Your task to perform on an android device: change alarm snooze length Image 0: 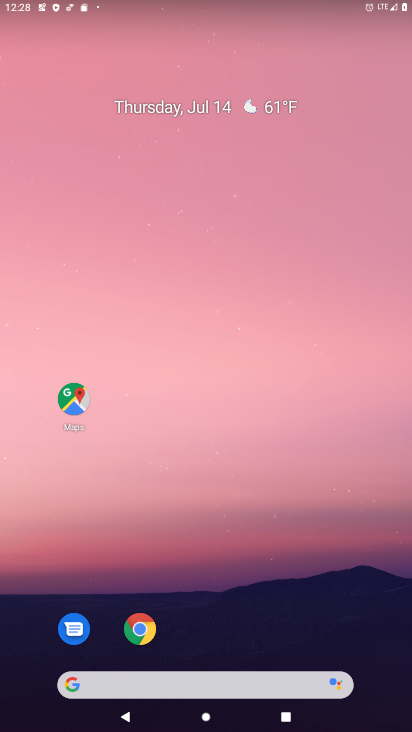
Step 0: drag from (275, 553) to (194, 162)
Your task to perform on an android device: change alarm snooze length Image 1: 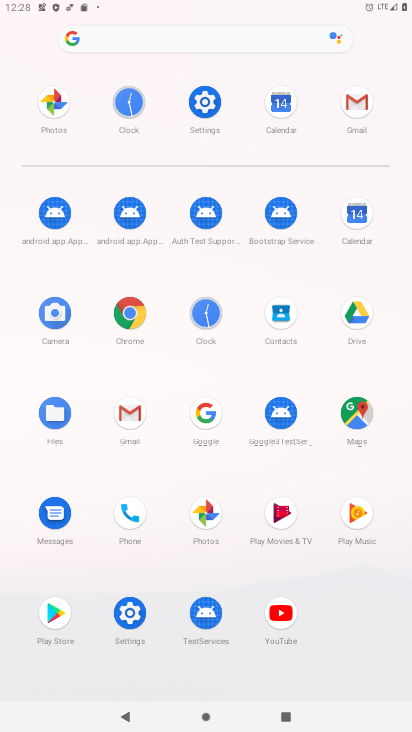
Step 1: click (208, 317)
Your task to perform on an android device: change alarm snooze length Image 2: 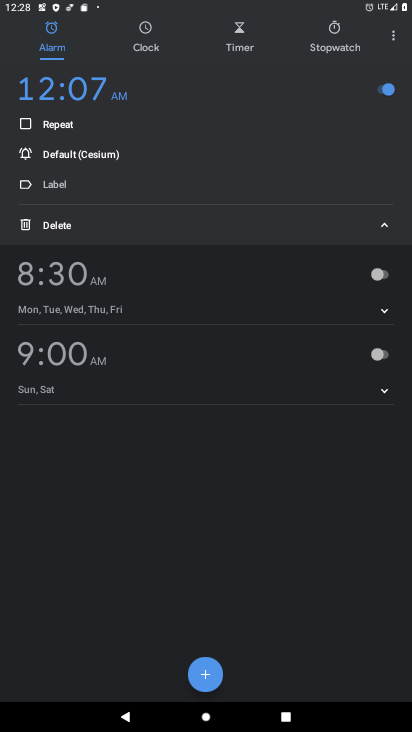
Step 2: click (394, 31)
Your task to perform on an android device: change alarm snooze length Image 3: 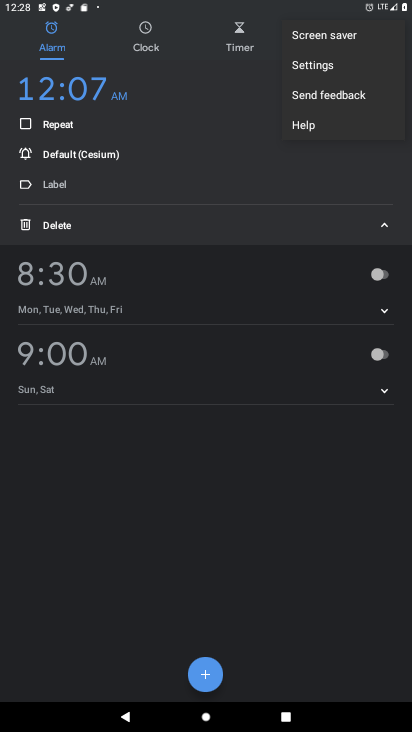
Step 3: click (324, 63)
Your task to perform on an android device: change alarm snooze length Image 4: 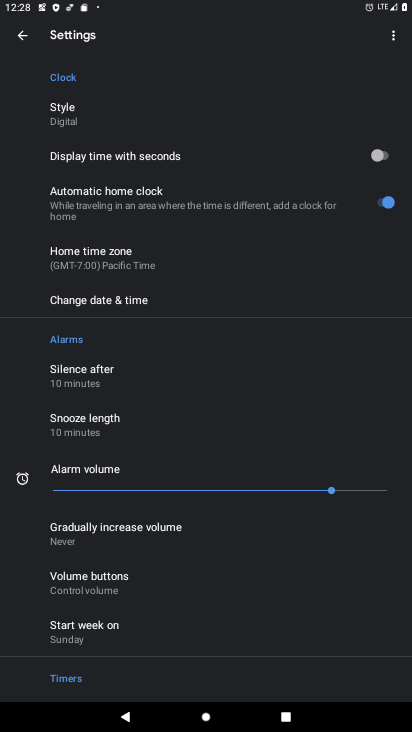
Step 4: click (93, 424)
Your task to perform on an android device: change alarm snooze length Image 5: 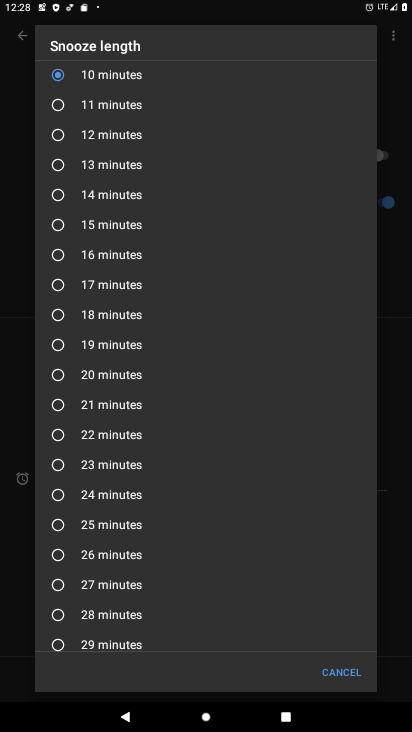
Step 5: click (52, 224)
Your task to perform on an android device: change alarm snooze length Image 6: 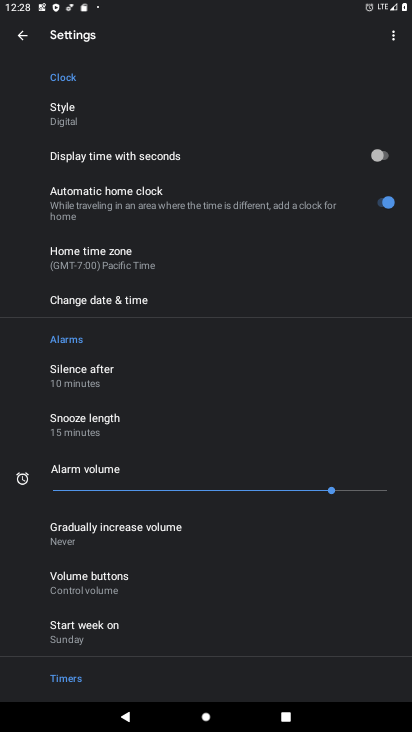
Step 6: task complete